Your task to perform on an android device: refresh tabs in the chrome app Image 0: 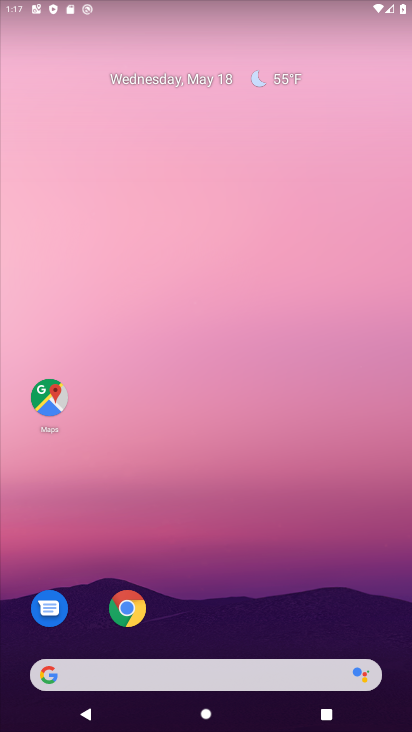
Step 0: click (136, 610)
Your task to perform on an android device: refresh tabs in the chrome app Image 1: 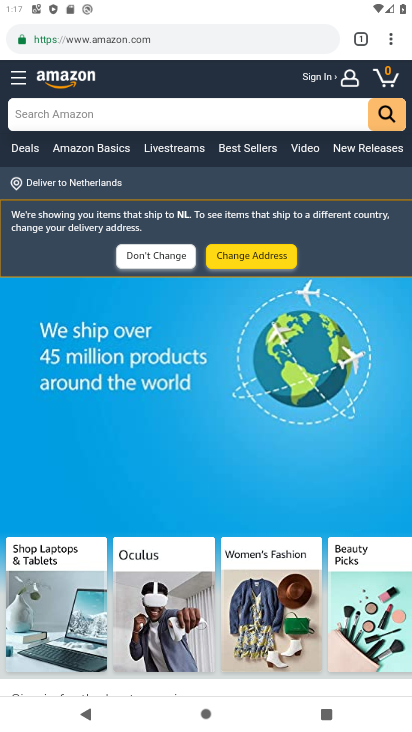
Step 1: click (390, 34)
Your task to perform on an android device: refresh tabs in the chrome app Image 2: 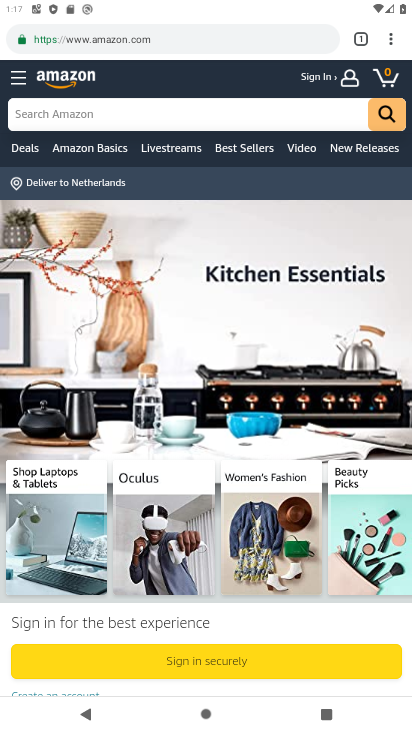
Step 2: task complete